Your task to perform on an android device: Open calendar and show me the second week of next month Image 0: 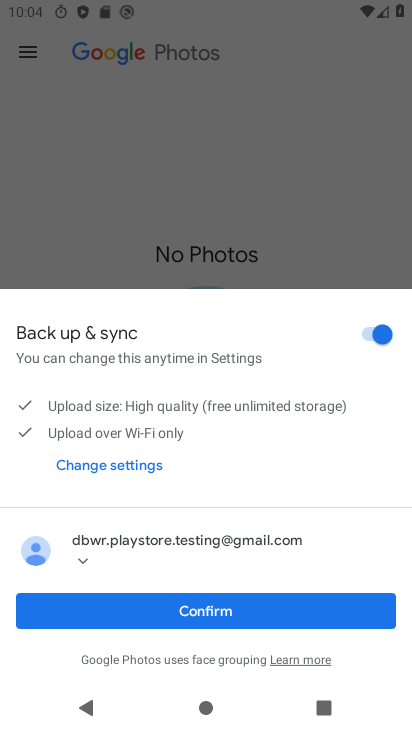
Step 0: press home button
Your task to perform on an android device: Open calendar and show me the second week of next month Image 1: 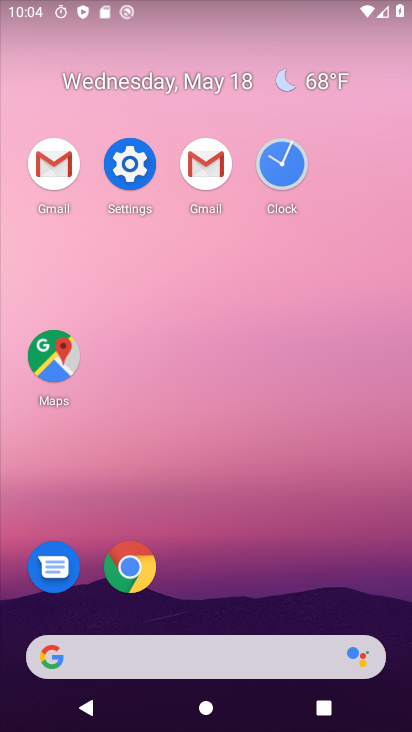
Step 1: drag from (265, 475) to (236, 197)
Your task to perform on an android device: Open calendar and show me the second week of next month Image 2: 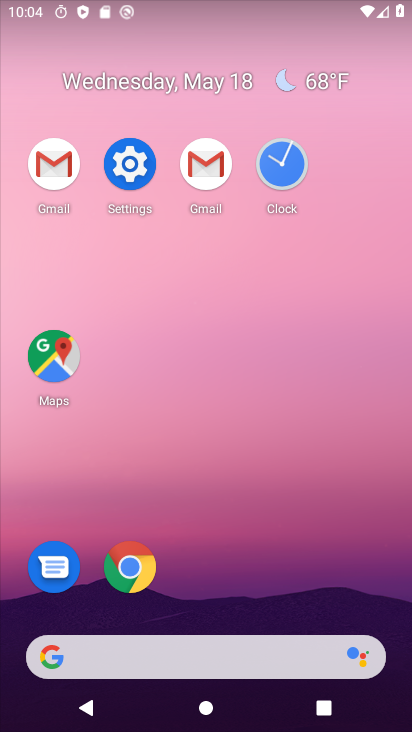
Step 2: drag from (268, 530) to (250, 135)
Your task to perform on an android device: Open calendar and show me the second week of next month Image 3: 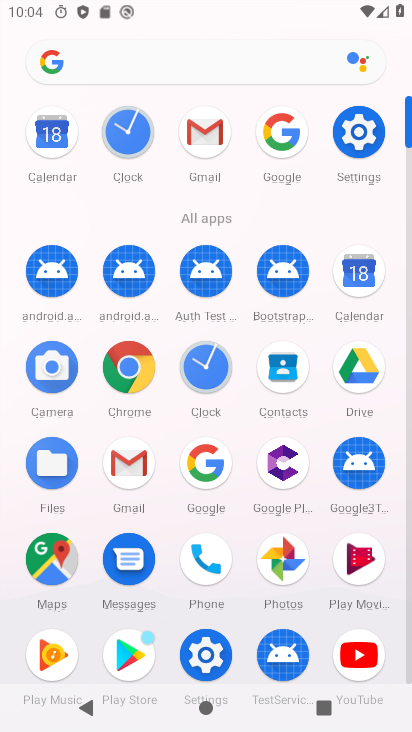
Step 3: drag from (59, 139) to (55, 275)
Your task to perform on an android device: Open calendar and show me the second week of next month Image 4: 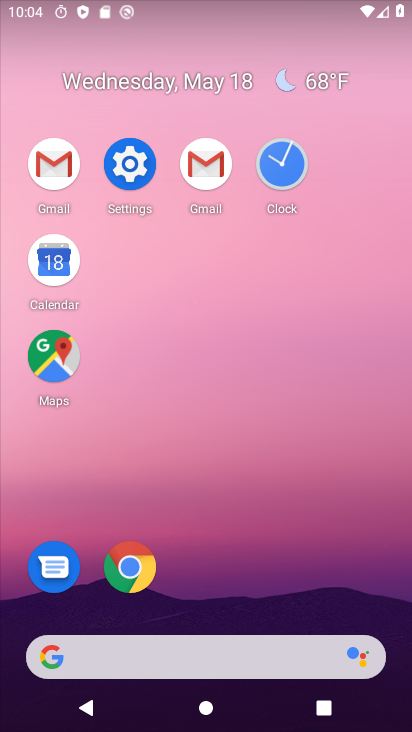
Step 4: click (63, 273)
Your task to perform on an android device: Open calendar and show me the second week of next month Image 5: 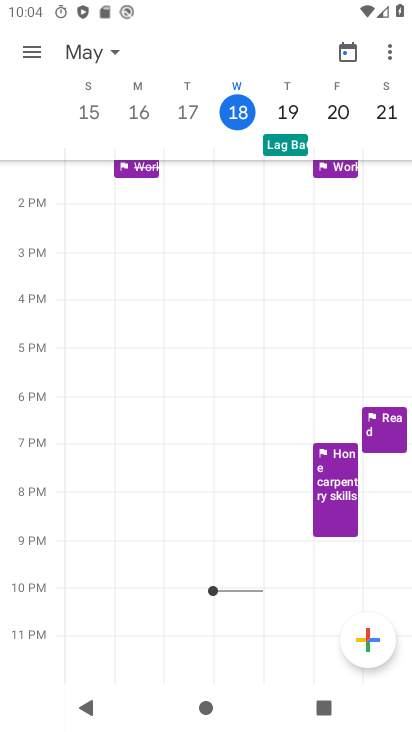
Step 5: click (109, 49)
Your task to perform on an android device: Open calendar and show me the second week of next month Image 6: 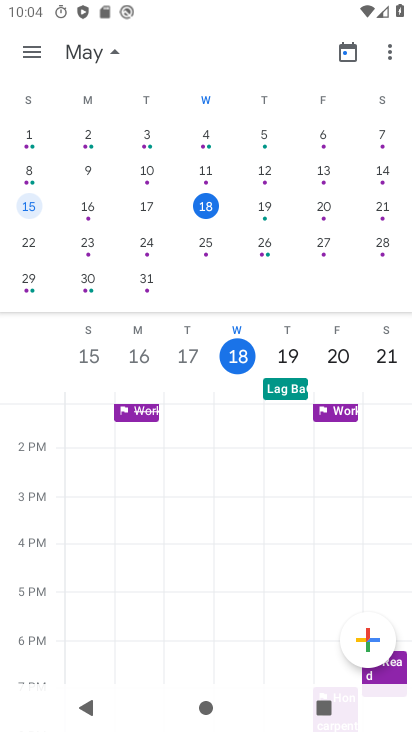
Step 6: drag from (379, 172) to (5, 116)
Your task to perform on an android device: Open calendar and show me the second week of next month Image 7: 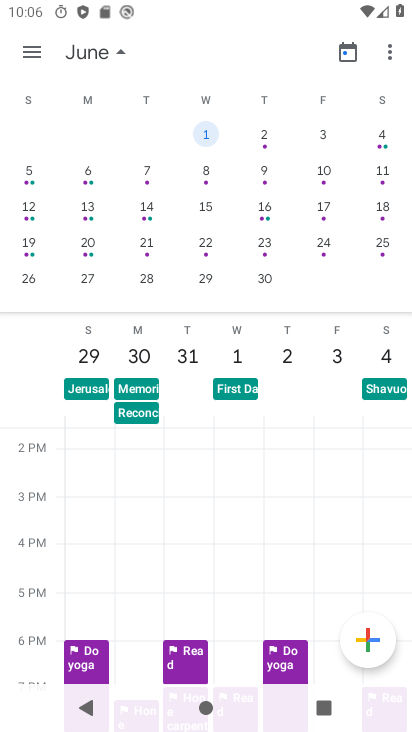
Step 7: click (32, 61)
Your task to perform on an android device: Open calendar and show me the second week of next month Image 8: 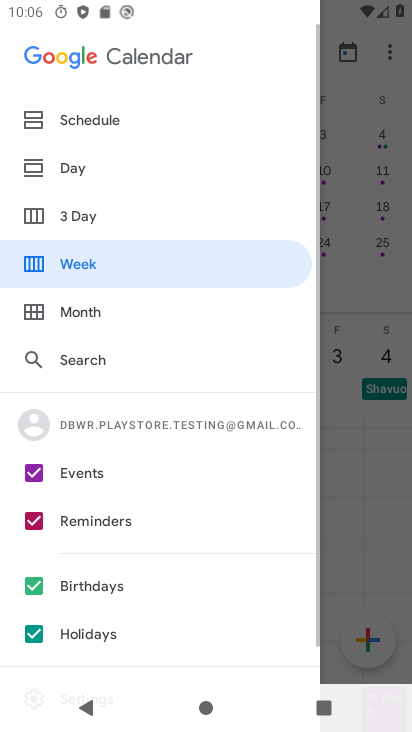
Step 8: click (153, 261)
Your task to perform on an android device: Open calendar and show me the second week of next month Image 9: 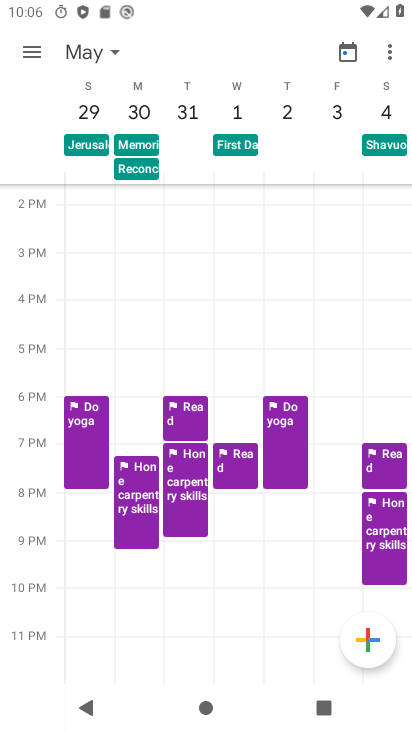
Step 9: task complete